Your task to perform on an android device: Go to notification settings Image 0: 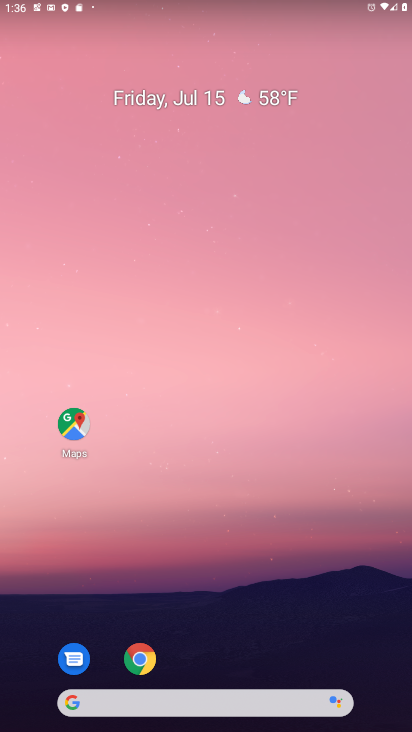
Step 0: drag from (276, 699) to (256, 338)
Your task to perform on an android device: Go to notification settings Image 1: 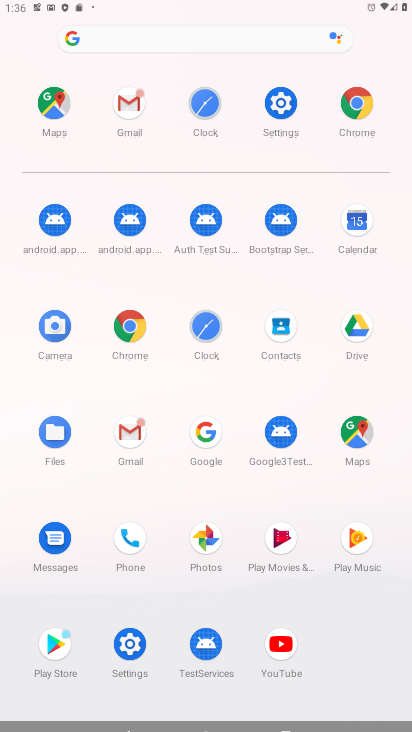
Step 1: click (282, 120)
Your task to perform on an android device: Go to notification settings Image 2: 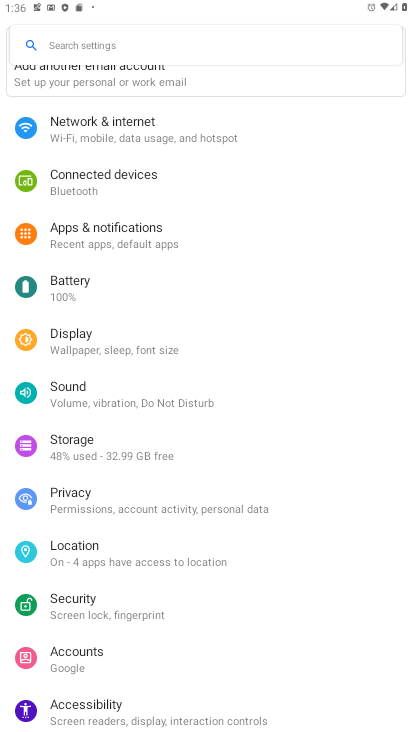
Step 2: click (117, 231)
Your task to perform on an android device: Go to notification settings Image 3: 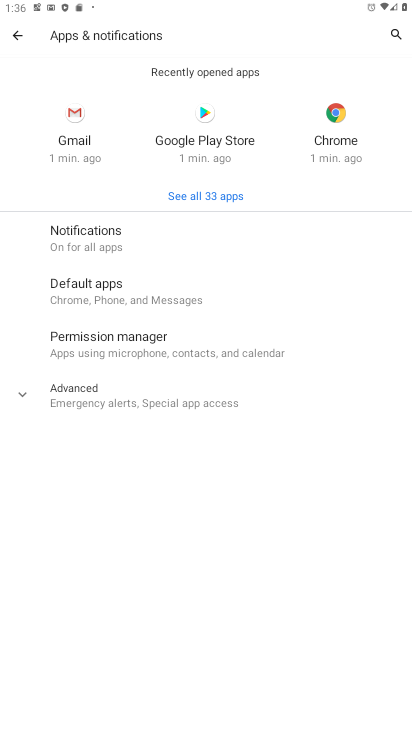
Step 3: click (117, 231)
Your task to perform on an android device: Go to notification settings Image 4: 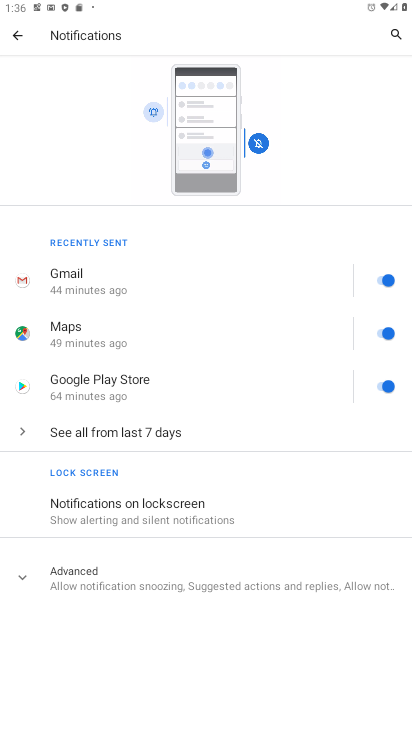
Step 4: task complete